Your task to perform on an android device: When is my next appointment? Image 0: 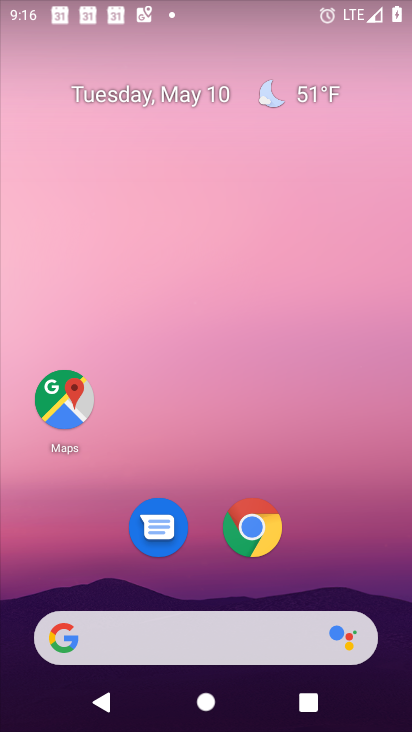
Step 0: drag from (233, 593) to (158, 39)
Your task to perform on an android device: When is my next appointment? Image 1: 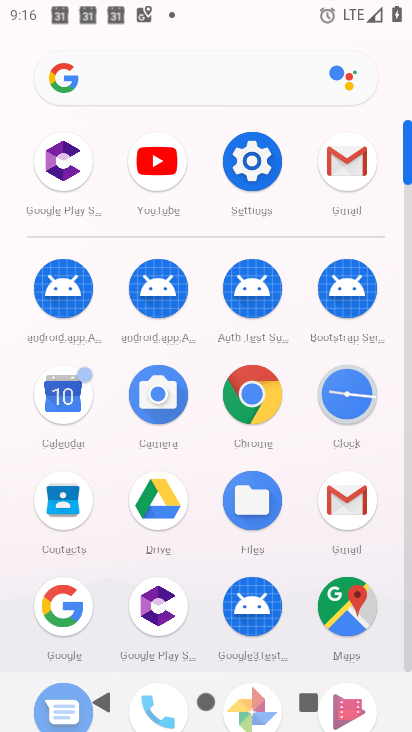
Step 1: click (73, 408)
Your task to perform on an android device: When is my next appointment? Image 2: 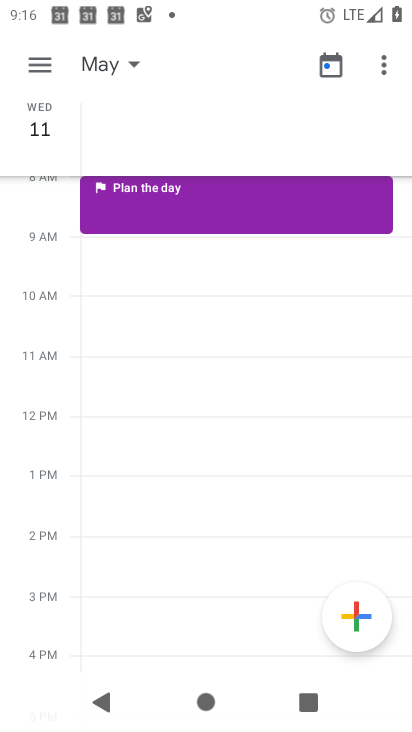
Step 2: click (29, 58)
Your task to perform on an android device: When is my next appointment? Image 3: 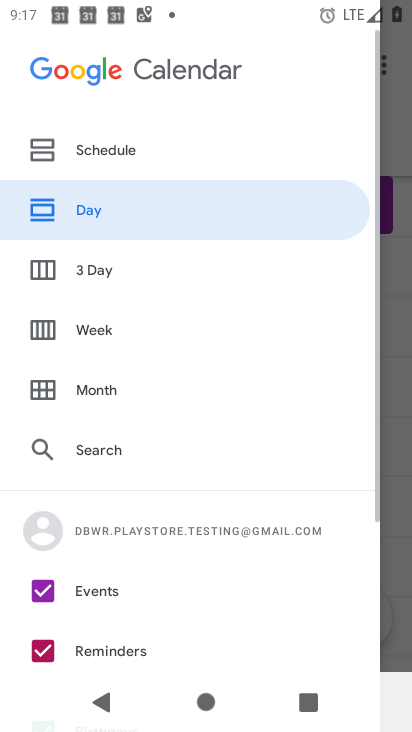
Step 3: click (101, 205)
Your task to perform on an android device: When is my next appointment? Image 4: 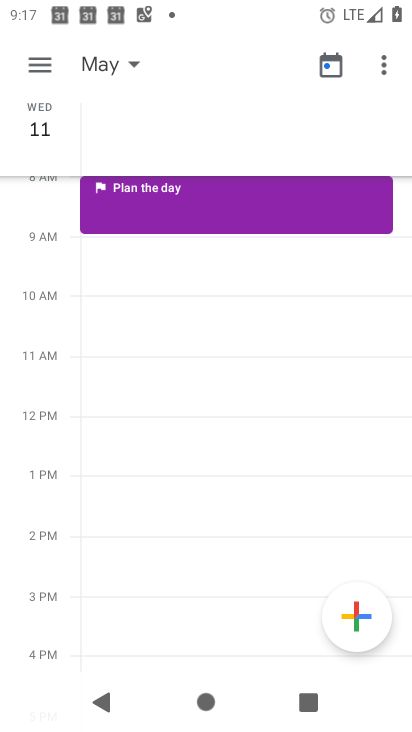
Step 4: click (329, 68)
Your task to perform on an android device: When is my next appointment? Image 5: 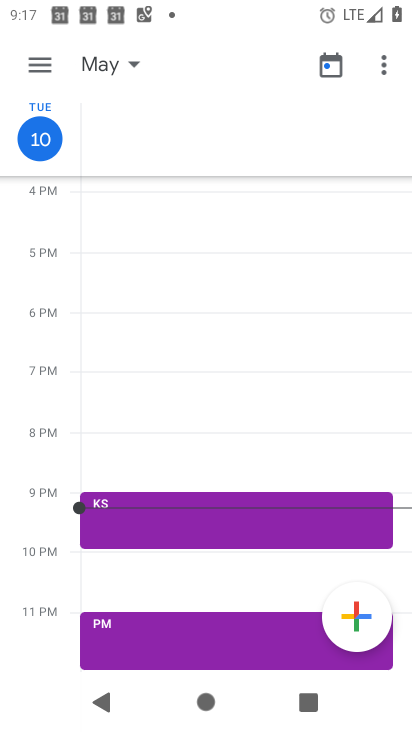
Step 5: click (330, 64)
Your task to perform on an android device: When is my next appointment? Image 6: 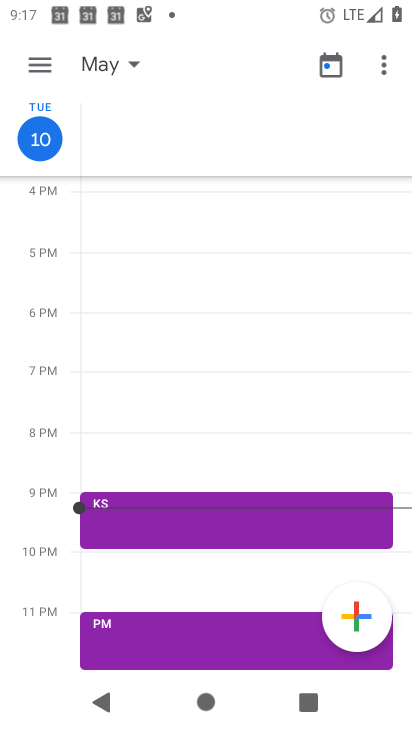
Step 6: click (332, 62)
Your task to perform on an android device: When is my next appointment? Image 7: 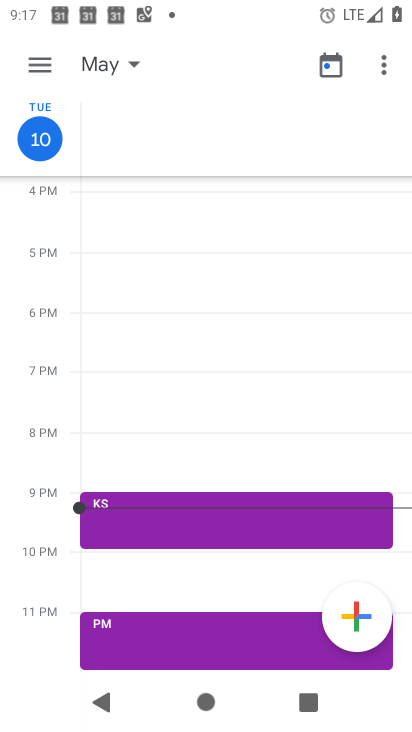
Step 7: click (330, 71)
Your task to perform on an android device: When is my next appointment? Image 8: 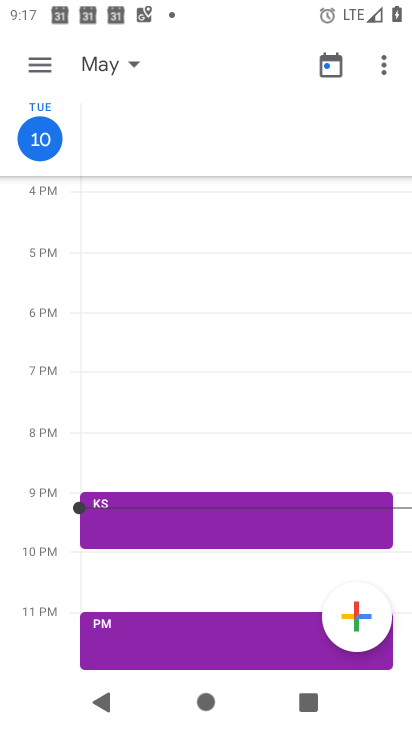
Step 8: click (335, 66)
Your task to perform on an android device: When is my next appointment? Image 9: 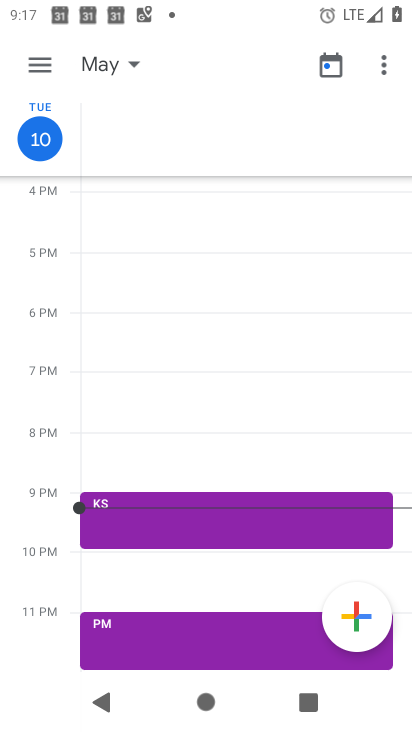
Step 9: click (129, 63)
Your task to perform on an android device: When is my next appointment? Image 10: 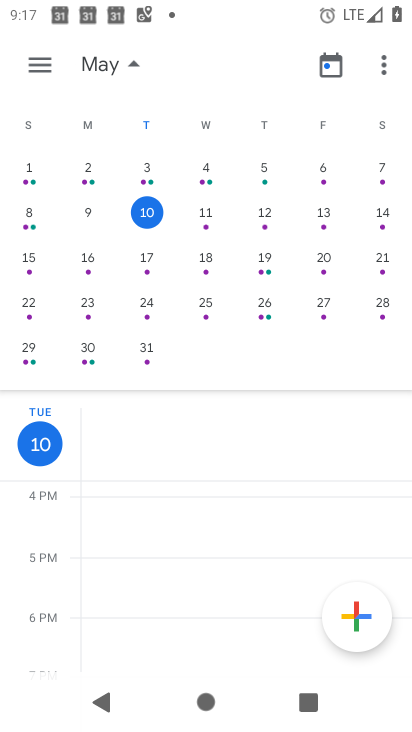
Step 10: click (202, 209)
Your task to perform on an android device: When is my next appointment? Image 11: 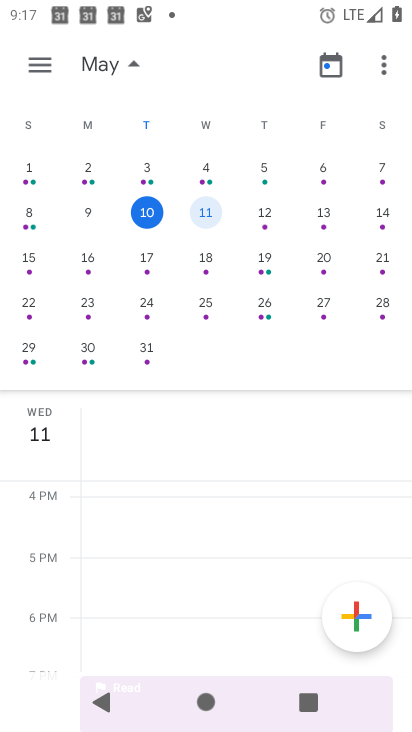
Step 11: click (160, 529)
Your task to perform on an android device: When is my next appointment? Image 12: 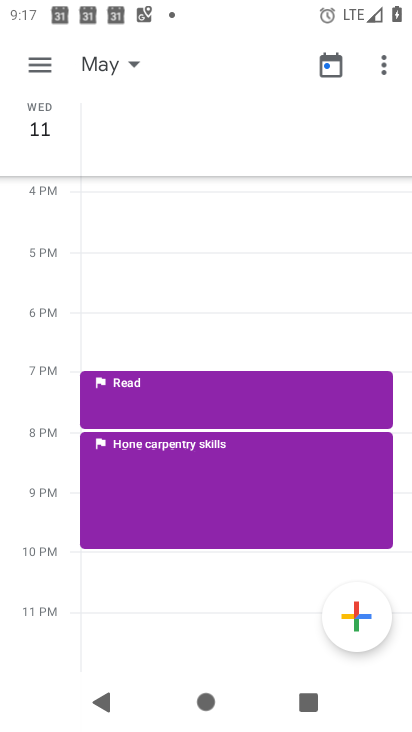
Step 12: task complete